Your task to perform on an android device: set default search engine in the chrome app Image 0: 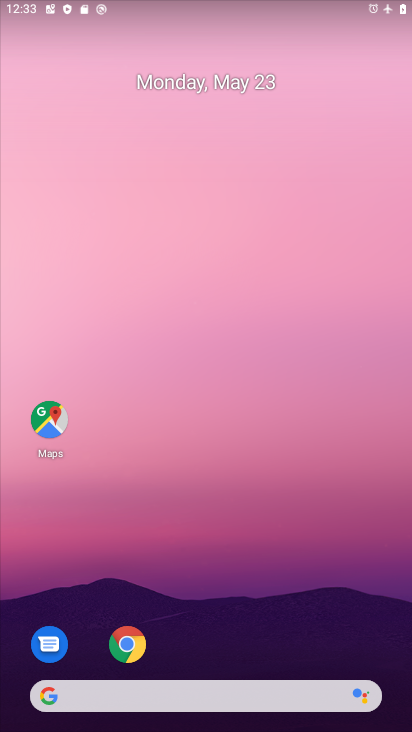
Step 0: click (126, 651)
Your task to perform on an android device: set default search engine in the chrome app Image 1: 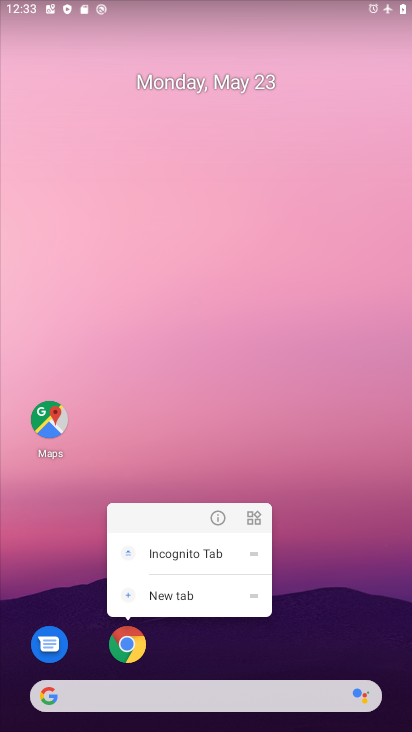
Step 1: click (312, 657)
Your task to perform on an android device: set default search engine in the chrome app Image 2: 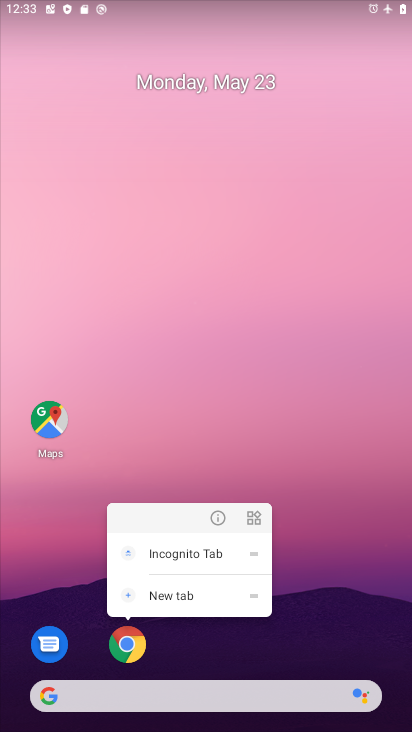
Step 2: drag from (318, 637) to (328, 53)
Your task to perform on an android device: set default search engine in the chrome app Image 3: 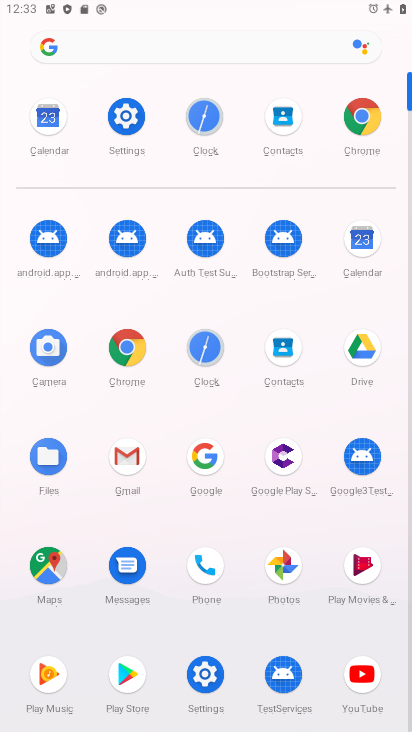
Step 3: click (377, 127)
Your task to perform on an android device: set default search engine in the chrome app Image 4: 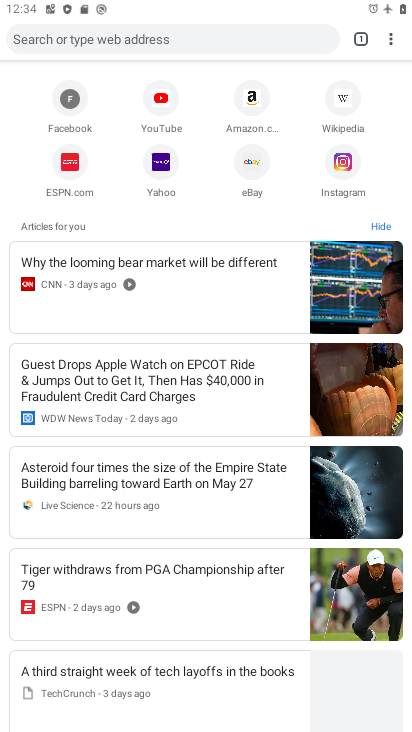
Step 4: click (393, 39)
Your task to perform on an android device: set default search engine in the chrome app Image 5: 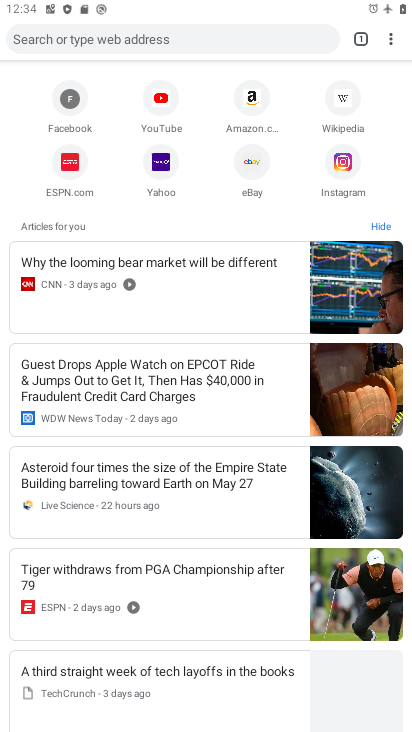
Step 5: click (383, 31)
Your task to perform on an android device: set default search engine in the chrome app Image 6: 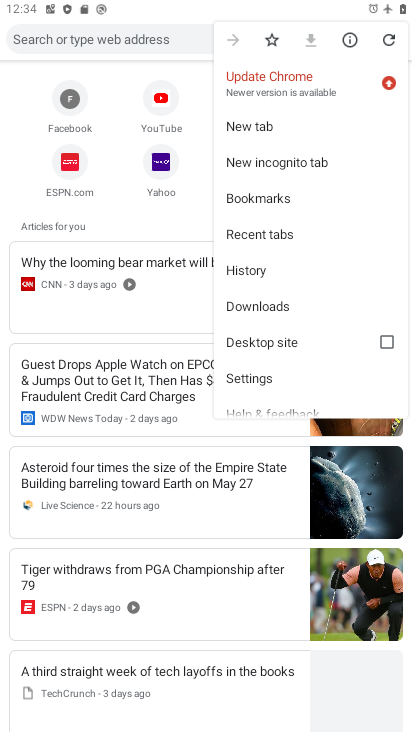
Step 6: click (276, 382)
Your task to perform on an android device: set default search engine in the chrome app Image 7: 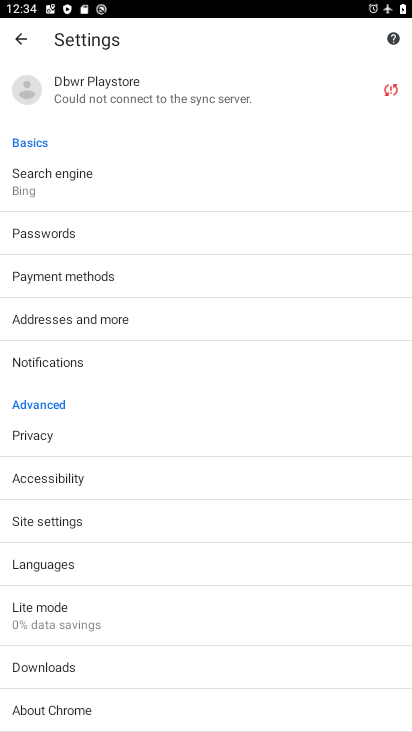
Step 7: click (64, 195)
Your task to perform on an android device: set default search engine in the chrome app Image 8: 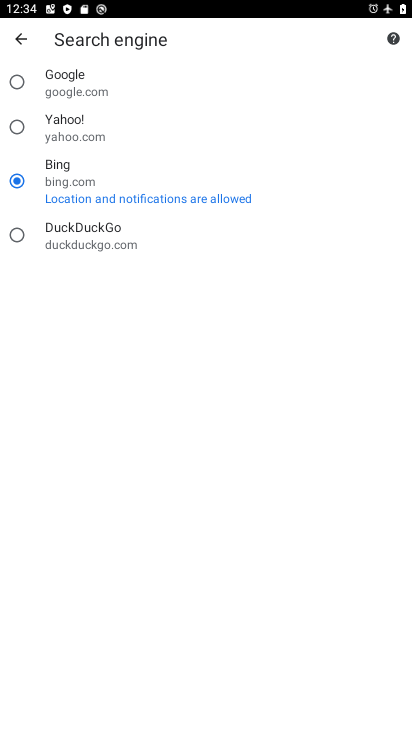
Step 8: click (69, 79)
Your task to perform on an android device: set default search engine in the chrome app Image 9: 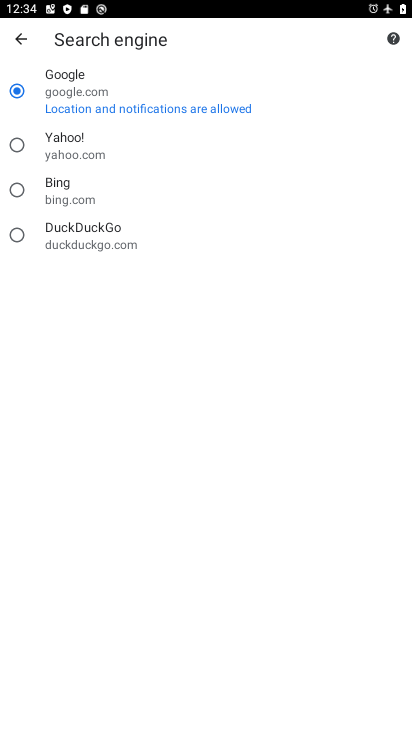
Step 9: task complete